Your task to perform on an android device: open wifi settings Image 0: 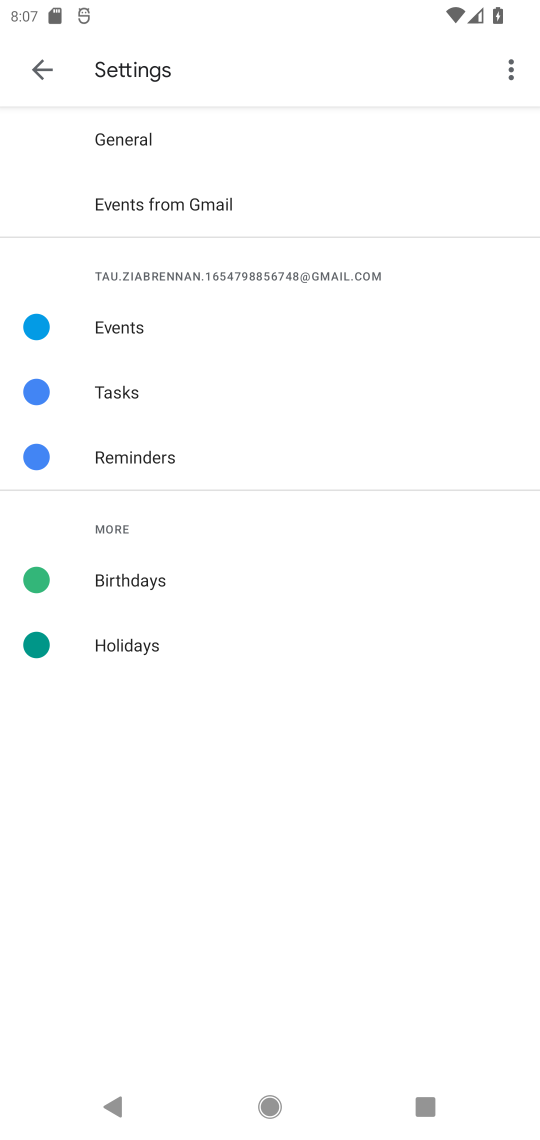
Step 0: drag from (191, 8) to (258, 950)
Your task to perform on an android device: open wifi settings Image 1: 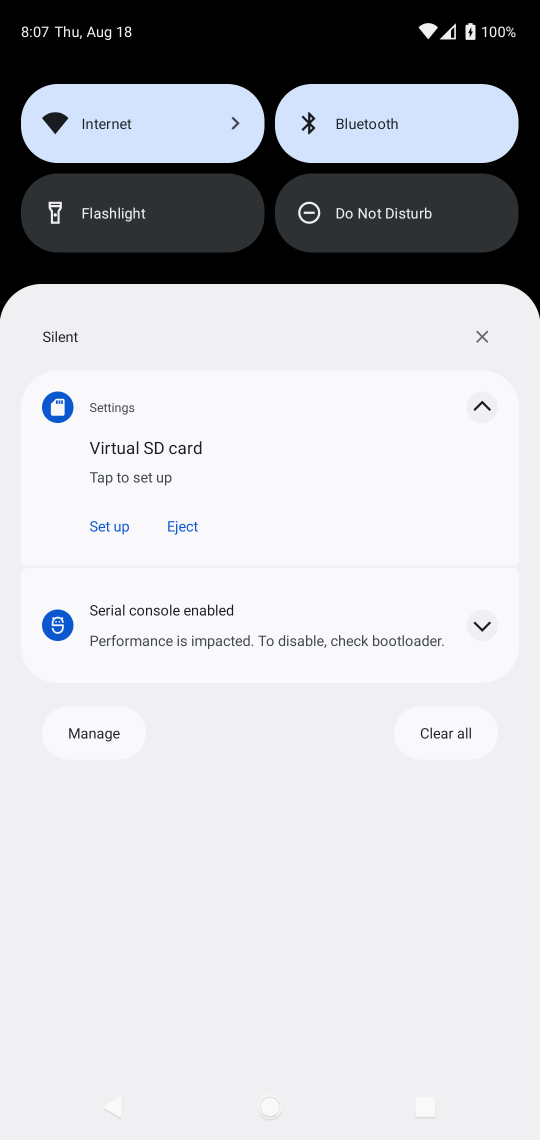
Step 1: click (174, 99)
Your task to perform on an android device: open wifi settings Image 2: 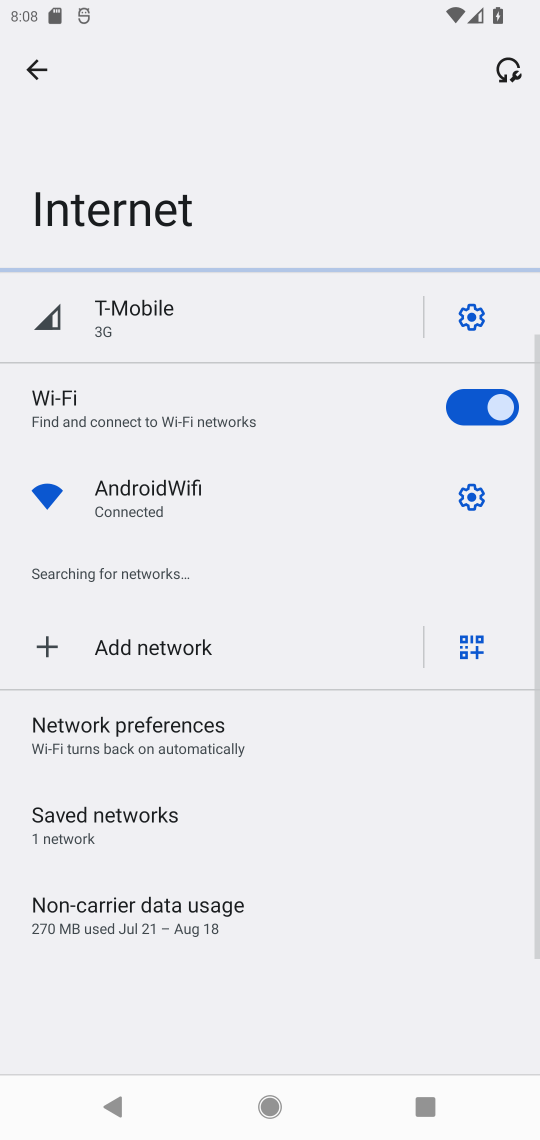
Step 2: task complete